Your task to perform on an android device: Open Maps and search for coffee Image 0: 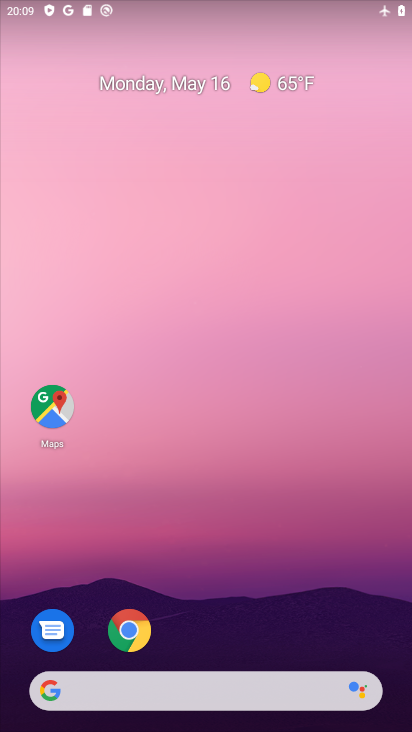
Step 0: click (200, 647)
Your task to perform on an android device: Open Maps and search for coffee Image 1: 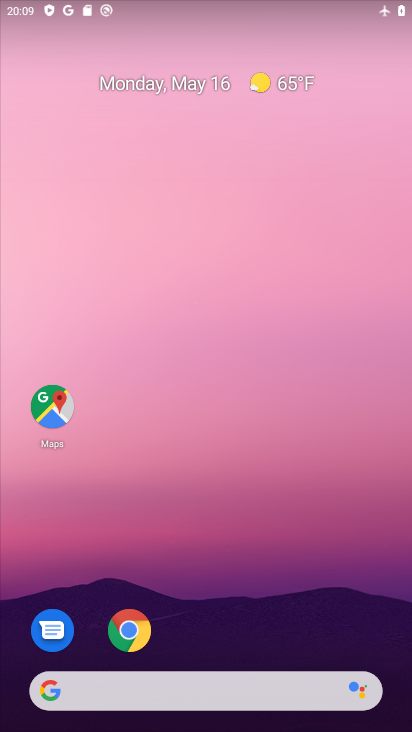
Step 1: click (54, 414)
Your task to perform on an android device: Open Maps and search for coffee Image 2: 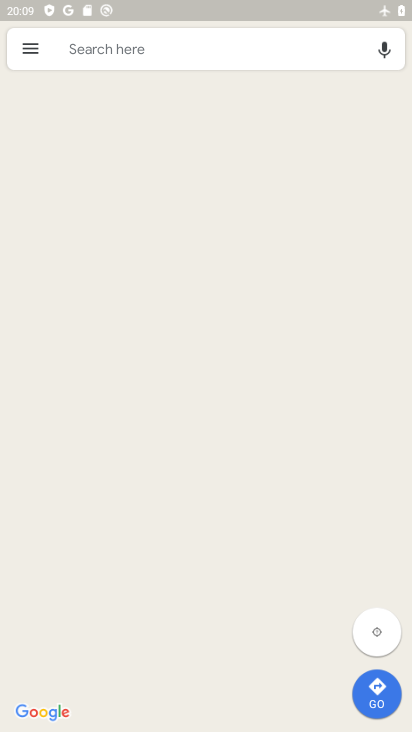
Step 2: click (86, 49)
Your task to perform on an android device: Open Maps and search for coffee Image 3: 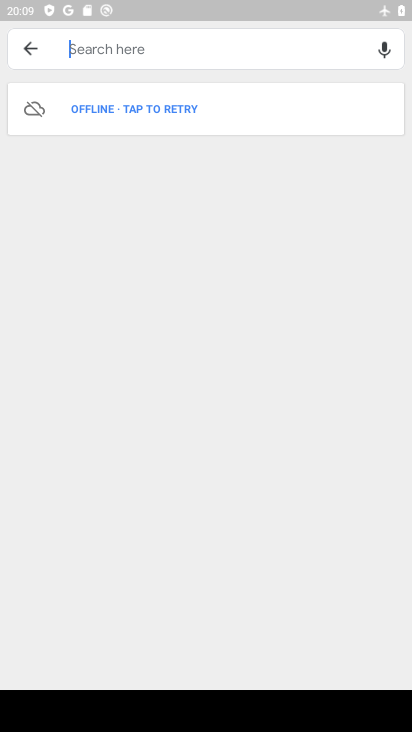
Step 3: type "coffee"
Your task to perform on an android device: Open Maps and search for coffee Image 4: 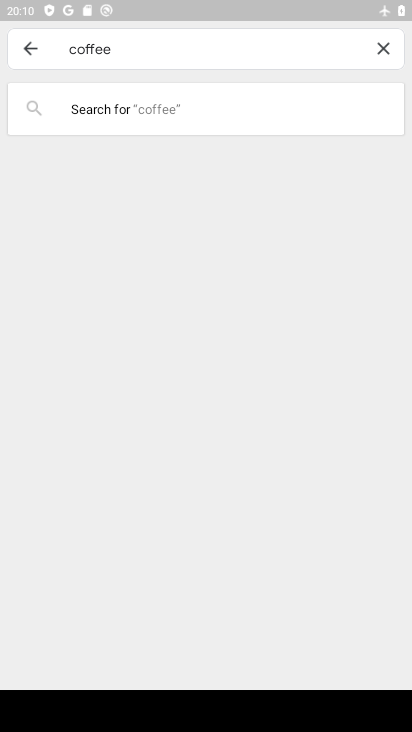
Step 4: task complete